Your task to perform on an android device: change alarm snooze length Image 0: 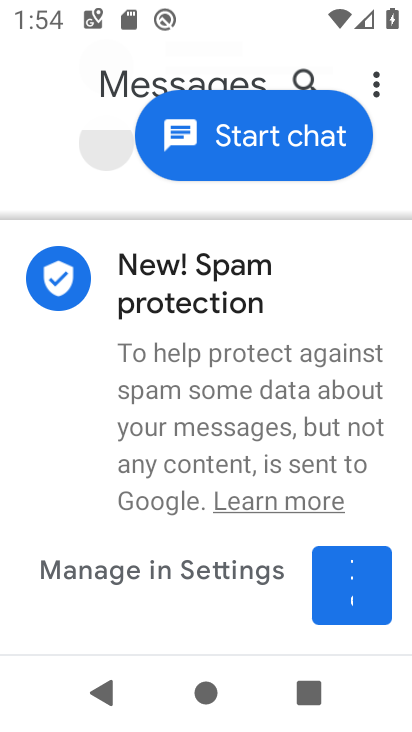
Step 0: drag from (335, 470) to (322, 53)
Your task to perform on an android device: change alarm snooze length Image 1: 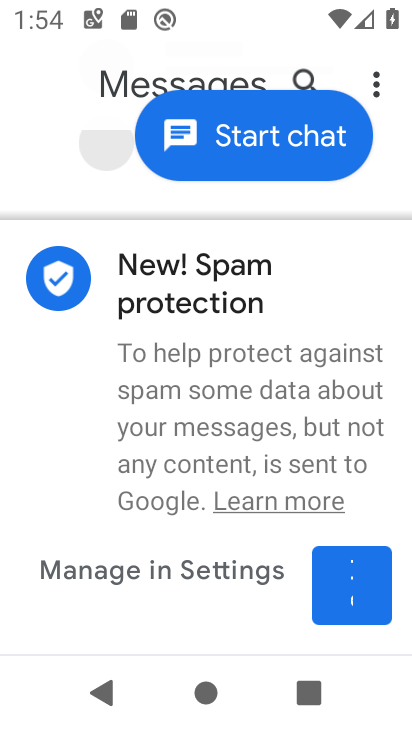
Step 1: press home button
Your task to perform on an android device: change alarm snooze length Image 2: 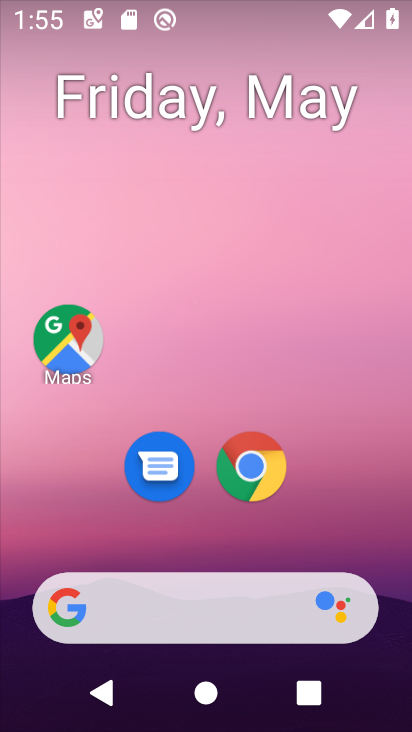
Step 2: drag from (372, 516) to (371, 57)
Your task to perform on an android device: change alarm snooze length Image 3: 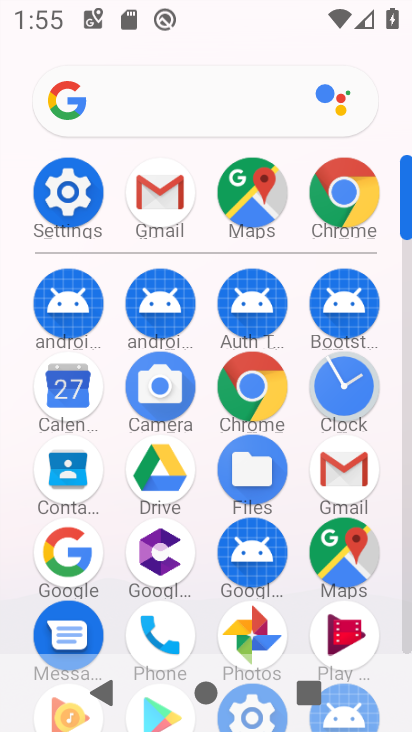
Step 3: click (77, 193)
Your task to perform on an android device: change alarm snooze length Image 4: 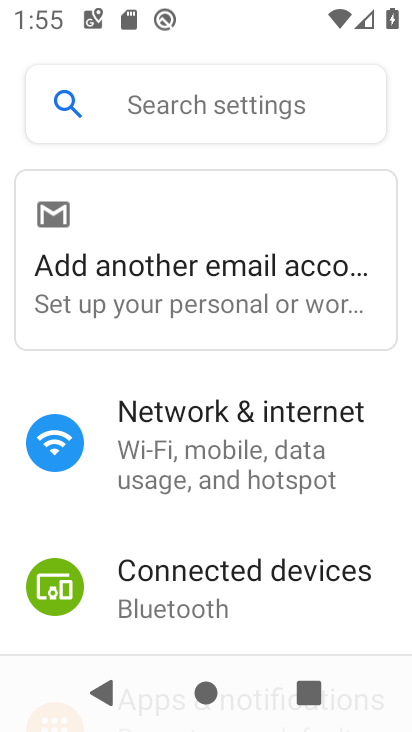
Step 4: press home button
Your task to perform on an android device: change alarm snooze length Image 5: 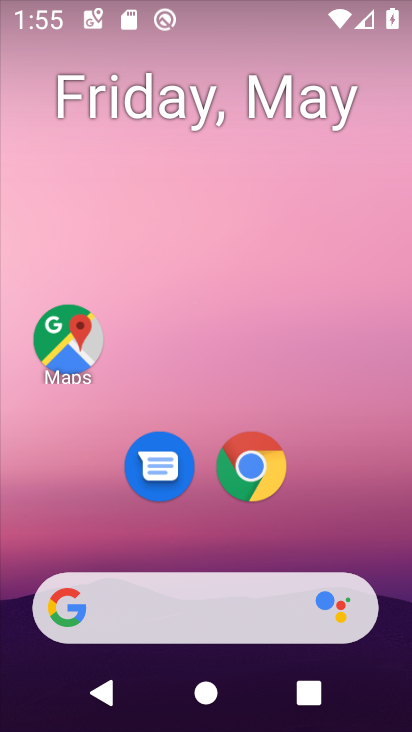
Step 5: drag from (338, 528) to (355, 45)
Your task to perform on an android device: change alarm snooze length Image 6: 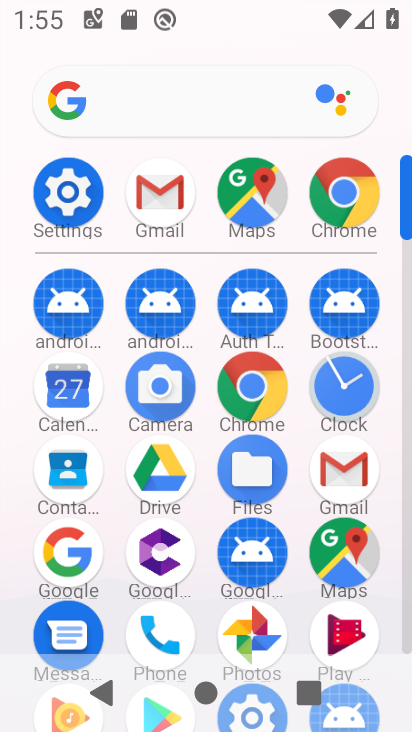
Step 6: click (352, 395)
Your task to perform on an android device: change alarm snooze length Image 7: 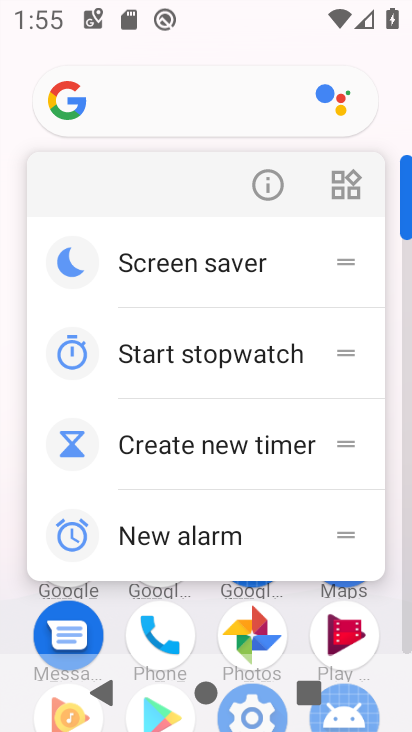
Step 7: press back button
Your task to perform on an android device: change alarm snooze length Image 8: 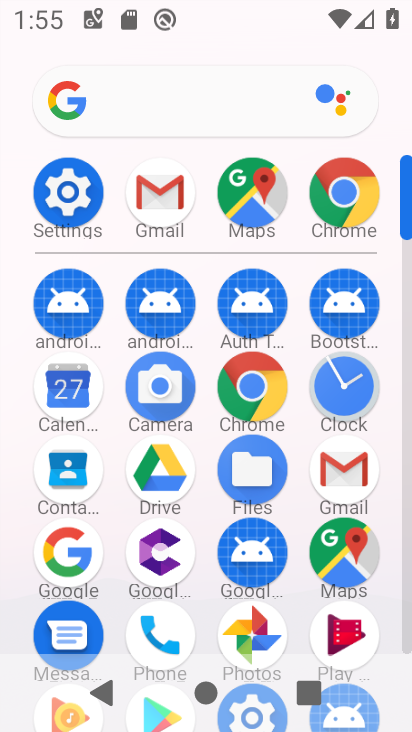
Step 8: click (351, 402)
Your task to perform on an android device: change alarm snooze length Image 9: 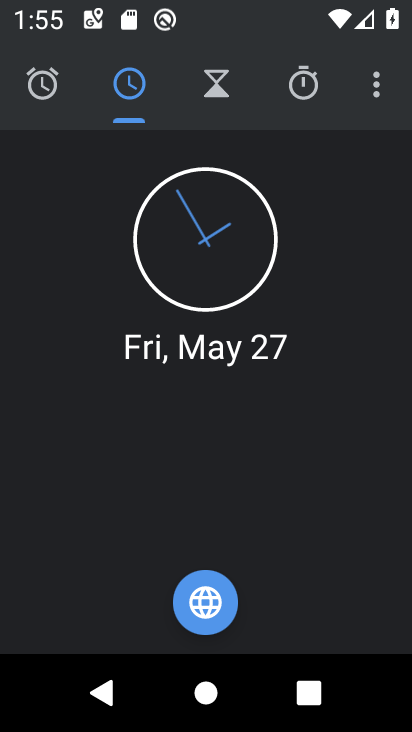
Step 9: click (386, 92)
Your task to perform on an android device: change alarm snooze length Image 10: 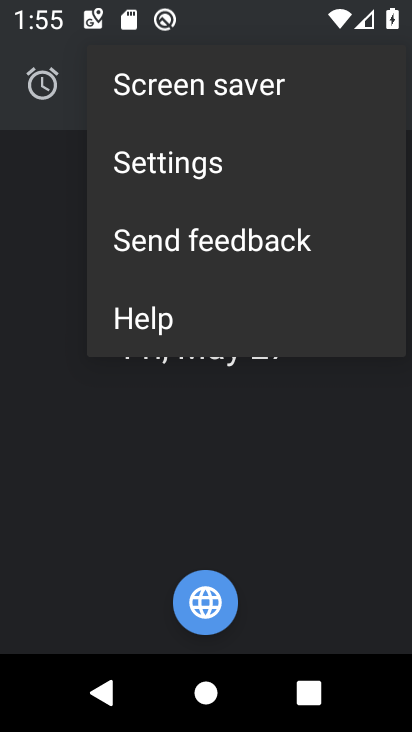
Step 10: click (200, 182)
Your task to perform on an android device: change alarm snooze length Image 11: 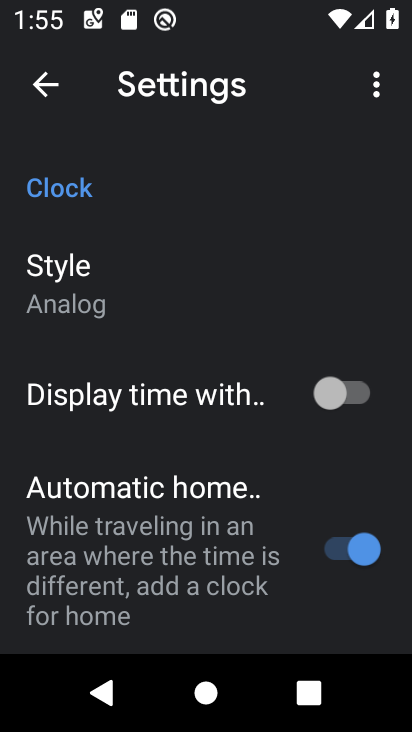
Step 11: drag from (186, 514) to (187, 188)
Your task to perform on an android device: change alarm snooze length Image 12: 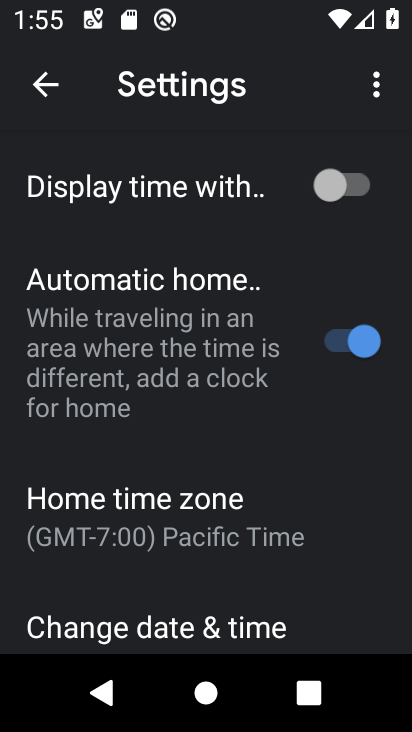
Step 12: drag from (183, 494) to (195, 149)
Your task to perform on an android device: change alarm snooze length Image 13: 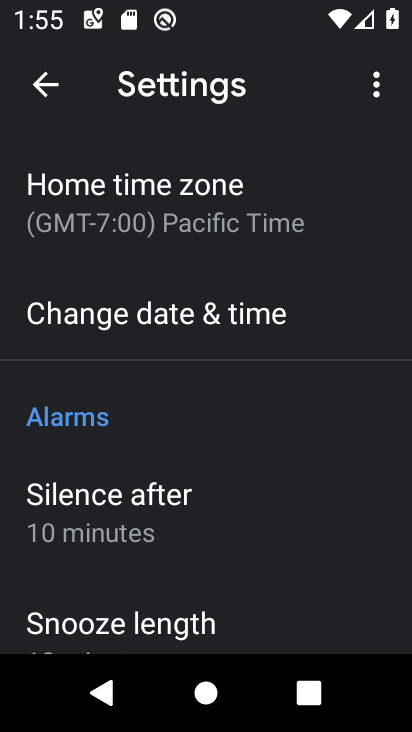
Step 13: drag from (210, 543) to (251, 146)
Your task to perform on an android device: change alarm snooze length Image 14: 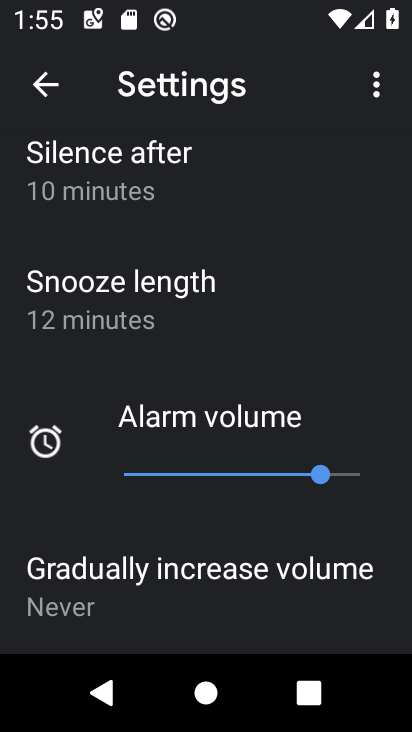
Step 14: click (134, 291)
Your task to perform on an android device: change alarm snooze length Image 15: 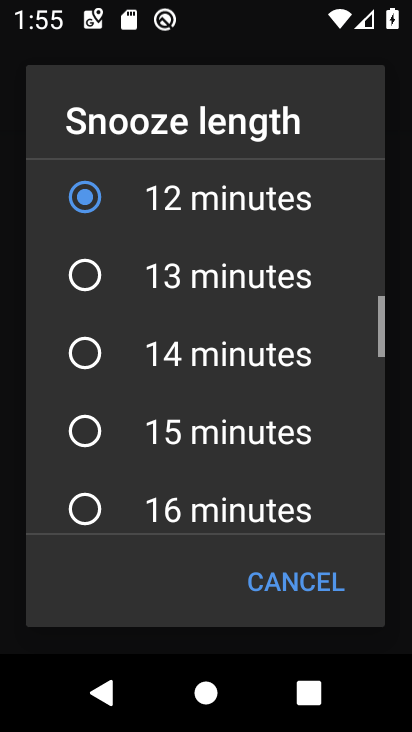
Step 15: click (101, 339)
Your task to perform on an android device: change alarm snooze length Image 16: 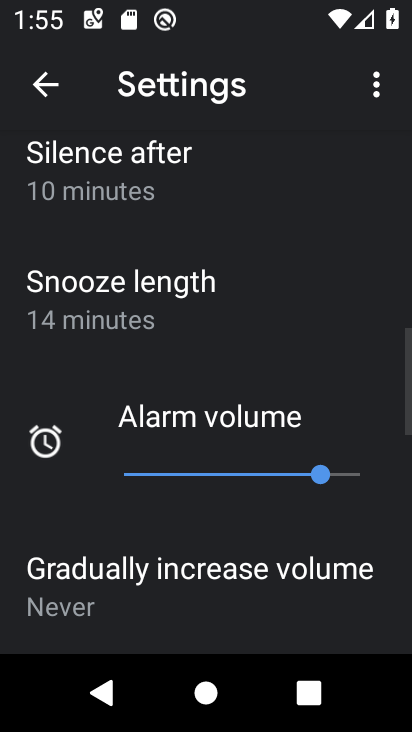
Step 16: task complete